Your task to perform on an android device: turn on wifi Image 0: 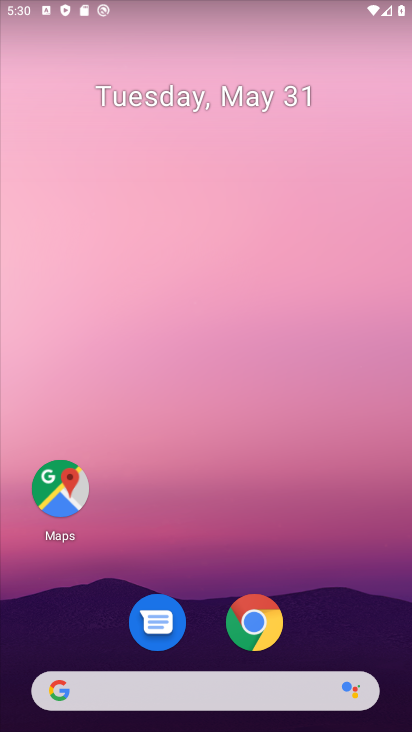
Step 0: drag from (329, 653) to (359, 7)
Your task to perform on an android device: turn on wifi Image 1: 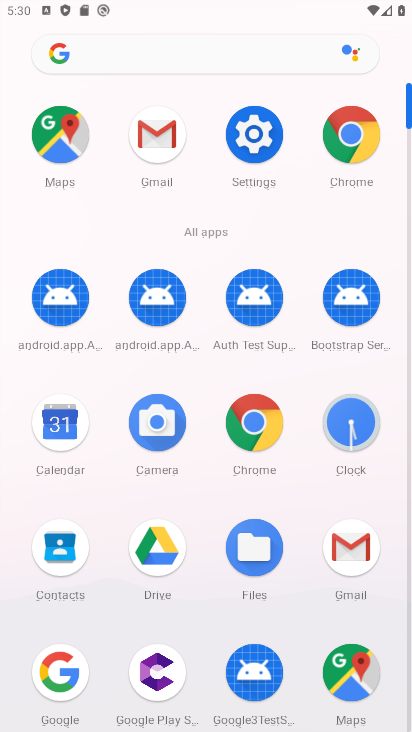
Step 1: click (247, 144)
Your task to perform on an android device: turn on wifi Image 2: 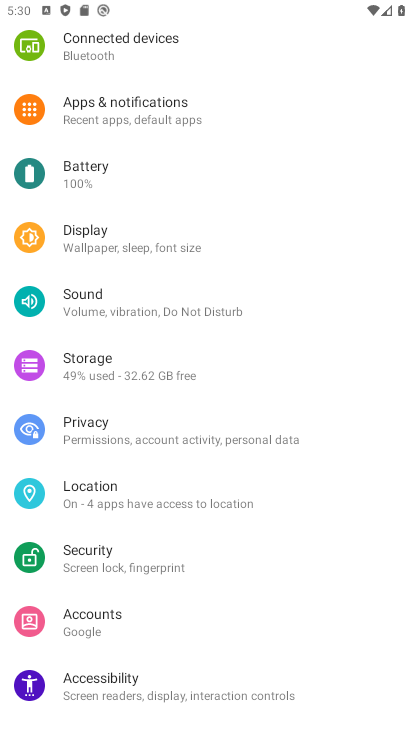
Step 2: drag from (248, 135) to (199, 579)
Your task to perform on an android device: turn on wifi Image 3: 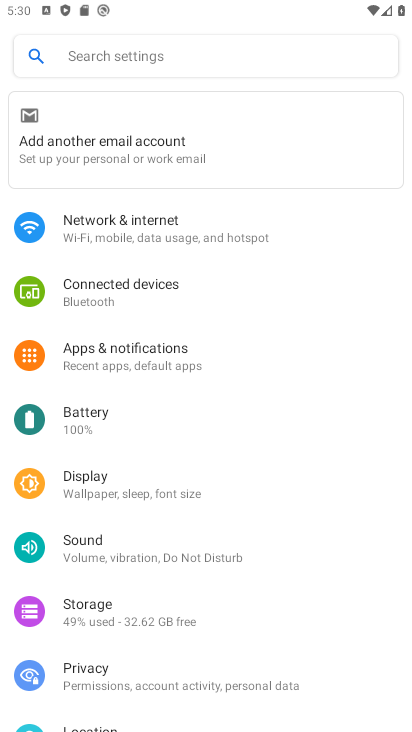
Step 3: click (203, 241)
Your task to perform on an android device: turn on wifi Image 4: 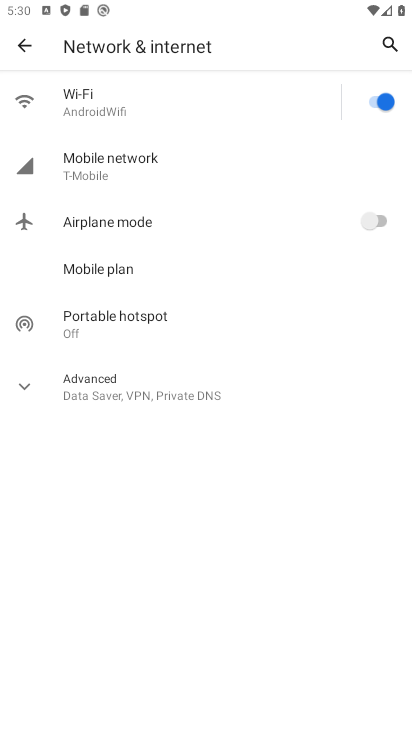
Step 4: task complete